Your task to perform on an android device: Open Chrome and go to settings Image 0: 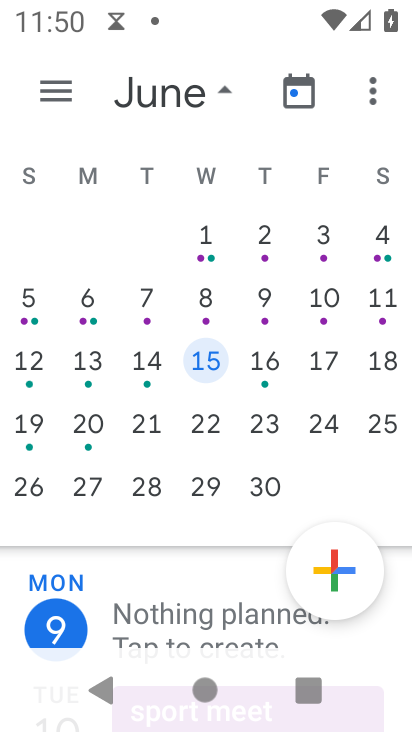
Step 0: press home button
Your task to perform on an android device: Open Chrome and go to settings Image 1: 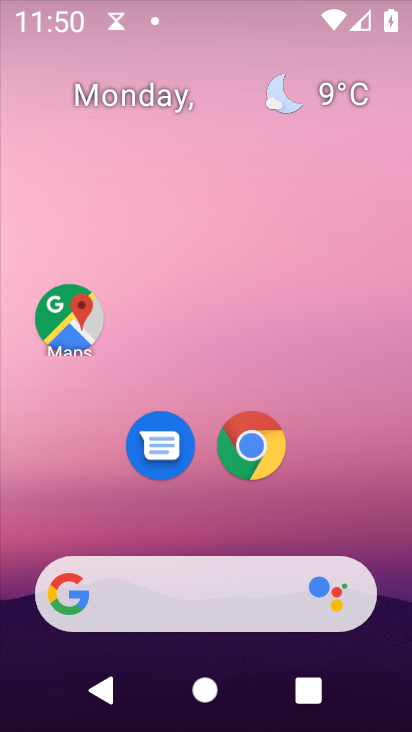
Step 1: drag from (267, 673) to (315, 122)
Your task to perform on an android device: Open Chrome and go to settings Image 2: 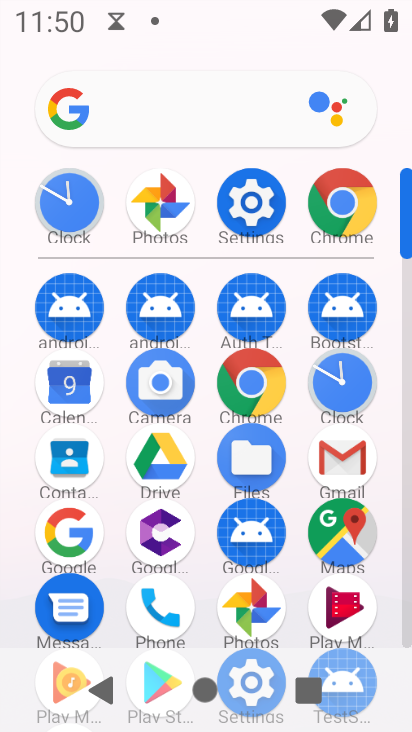
Step 2: click (257, 391)
Your task to perform on an android device: Open Chrome and go to settings Image 3: 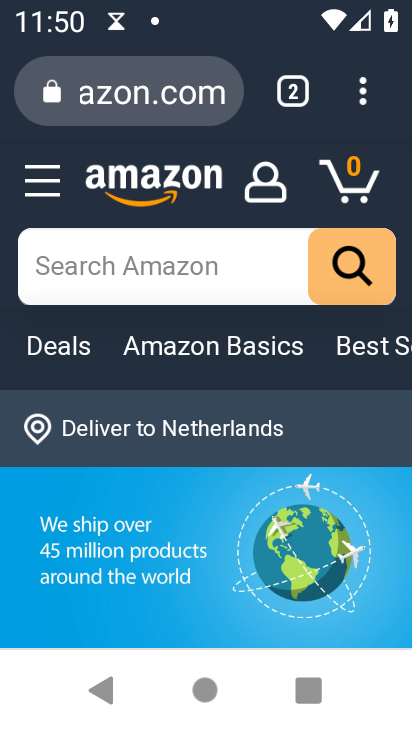
Step 3: click (362, 101)
Your task to perform on an android device: Open Chrome and go to settings Image 4: 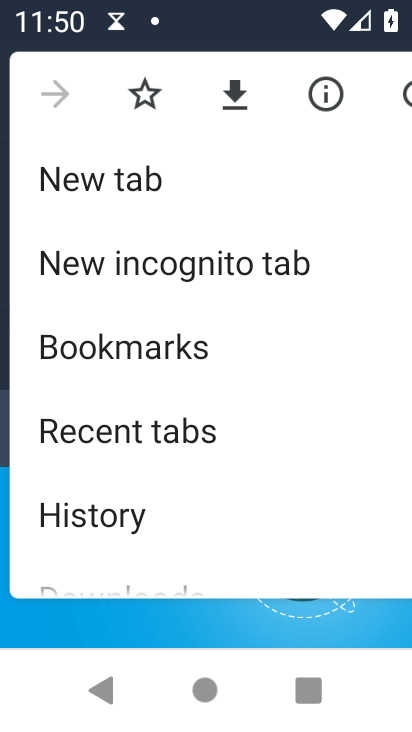
Step 4: drag from (194, 600) to (218, 154)
Your task to perform on an android device: Open Chrome and go to settings Image 5: 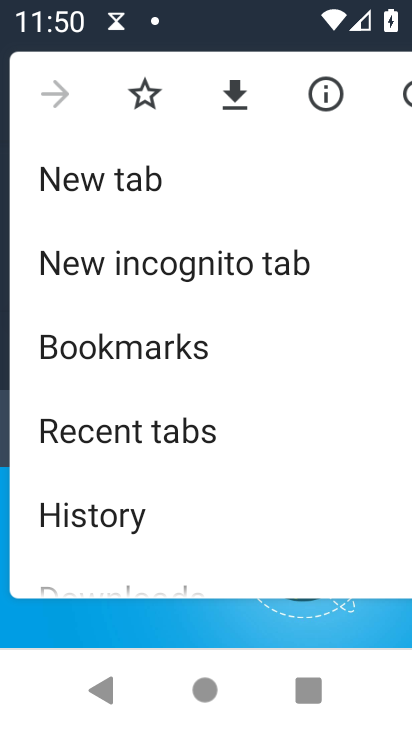
Step 5: drag from (203, 483) to (227, 147)
Your task to perform on an android device: Open Chrome and go to settings Image 6: 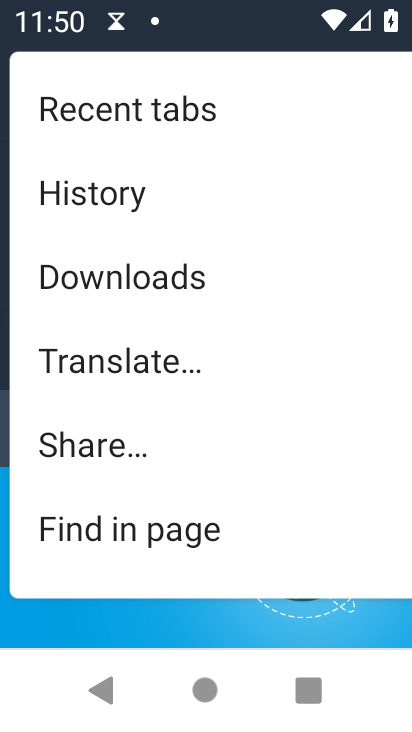
Step 6: drag from (226, 573) to (258, 172)
Your task to perform on an android device: Open Chrome and go to settings Image 7: 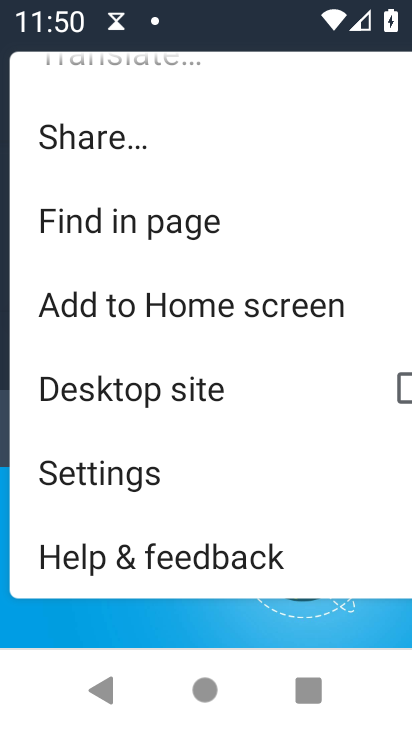
Step 7: click (175, 482)
Your task to perform on an android device: Open Chrome and go to settings Image 8: 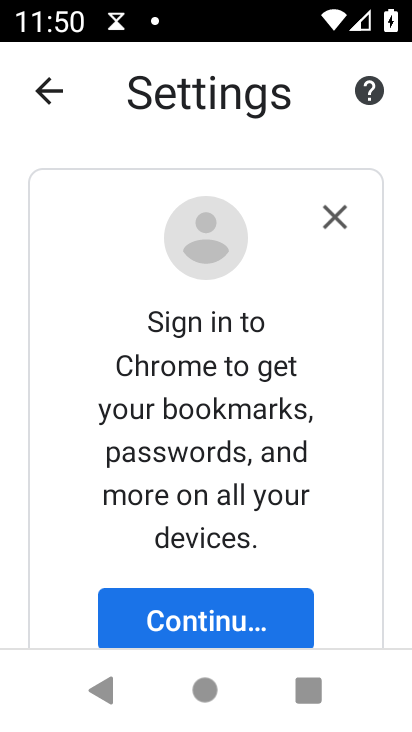
Step 8: task complete